Your task to perform on an android device: Open settings on Google Maps Image 0: 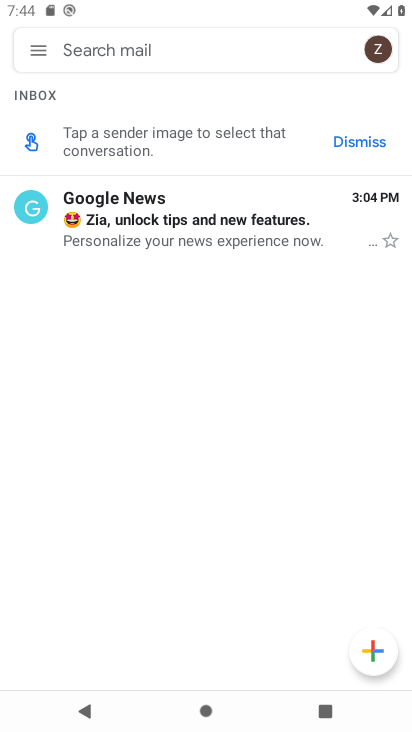
Step 0: press home button
Your task to perform on an android device: Open settings on Google Maps Image 1: 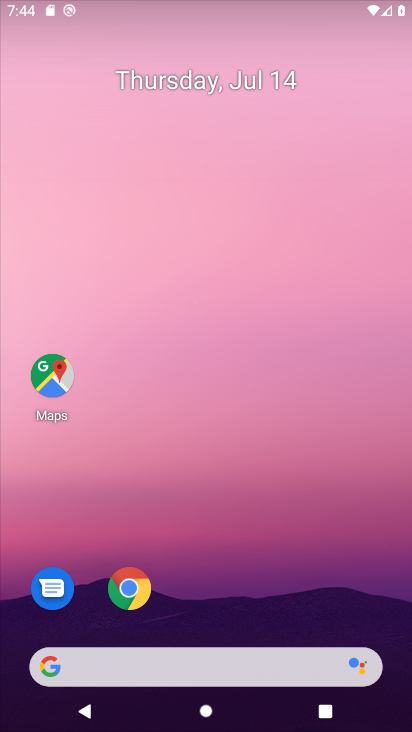
Step 1: drag from (213, 623) to (211, 125)
Your task to perform on an android device: Open settings on Google Maps Image 2: 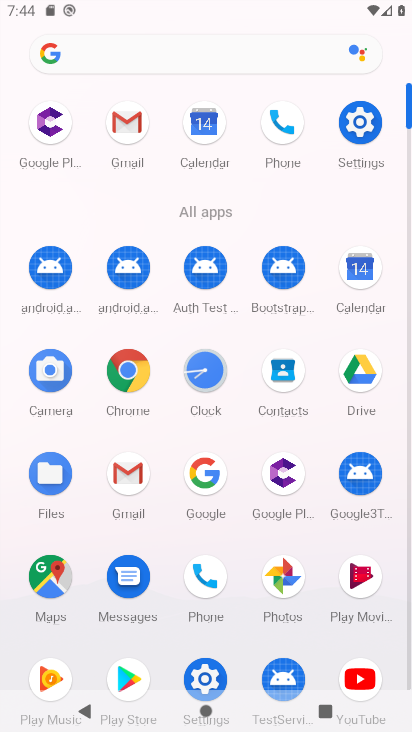
Step 2: click (62, 585)
Your task to perform on an android device: Open settings on Google Maps Image 3: 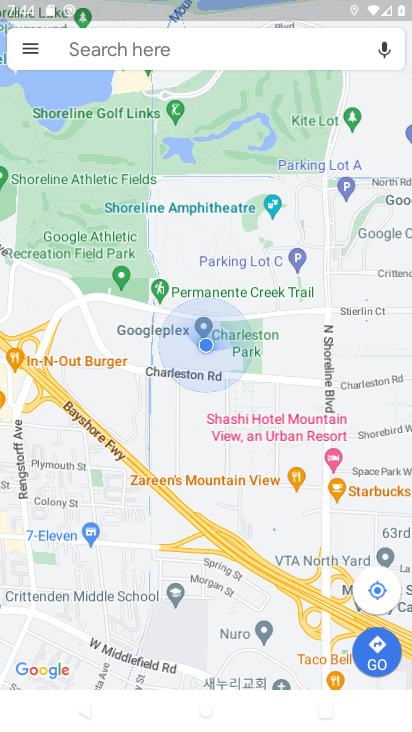
Step 3: click (28, 43)
Your task to perform on an android device: Open settings on Google Maps Image 4: 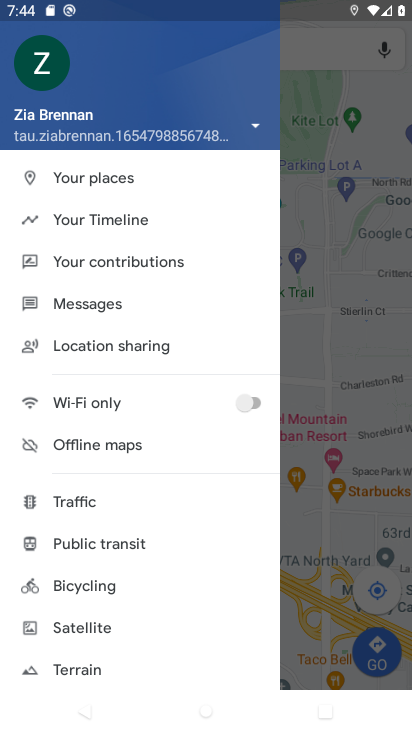
Step 4: drag from (92, 630) to (69, 343)
Your task to perform on an android device: Open settings on Google Maps Image 5: 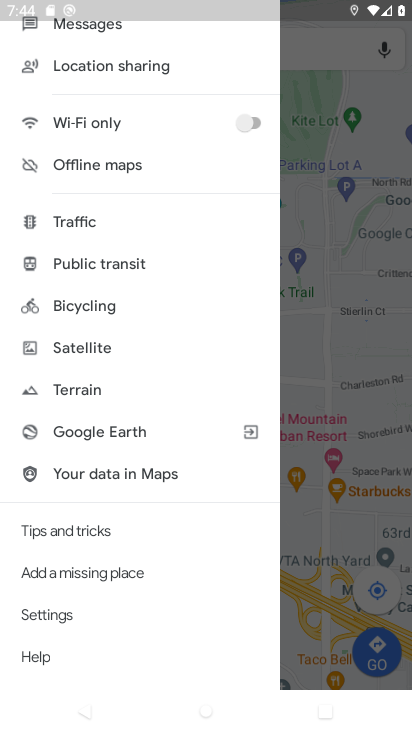
Step 5: click (74, 606)
Your task to perform on an android device: Open settings on Google Maps Image 6: 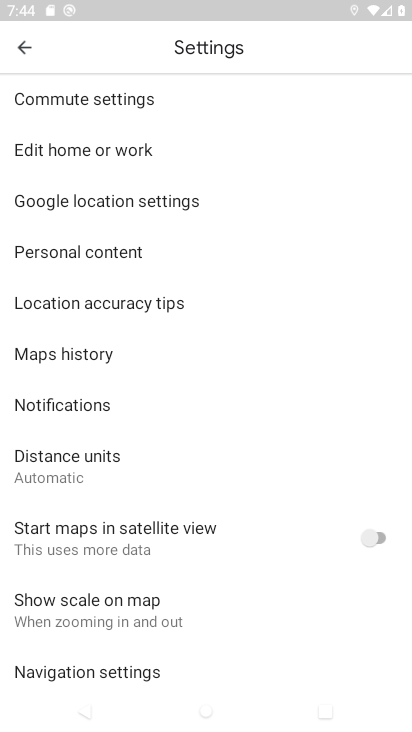
Step 6: task complete